Your task to perform on an android device: Open calendar and show me the fourth week of next month Image 0: 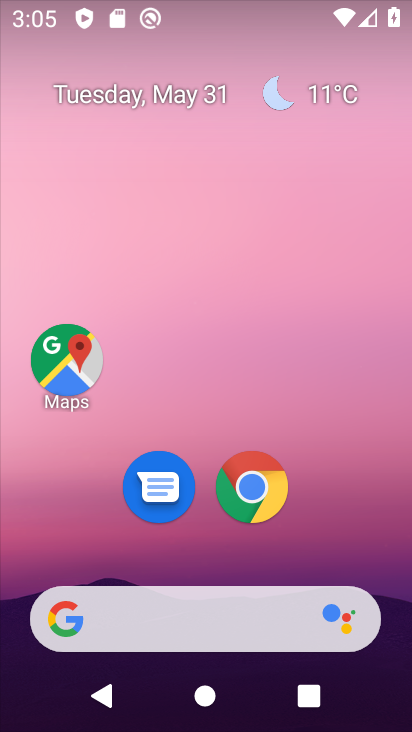
Step 0: drag from (319, 537) to (253, 80)
Your task to perform on an android device: Open calendar and show me the fourth week of next month Image 1: 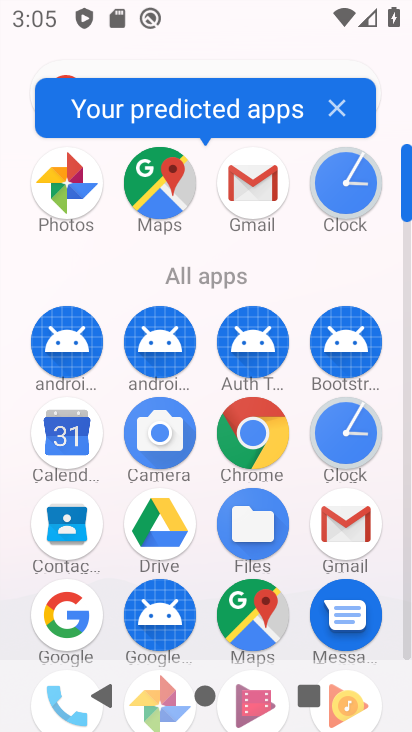
Step 1: click (66, 435)
Your task to perform on an android device: Open calendar and show me the fourth week of next month Image 2: 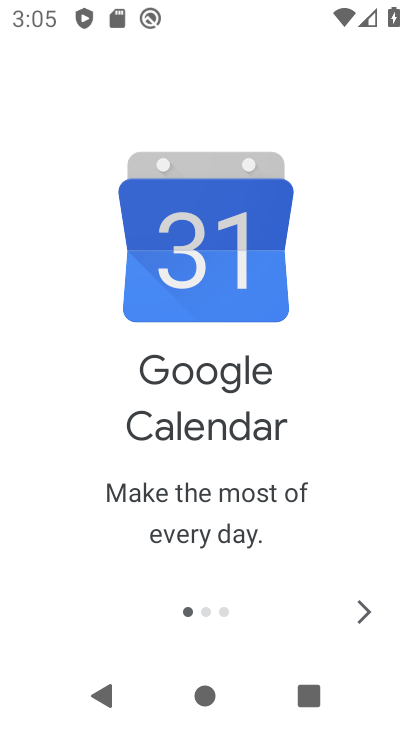
Step 2: click (368, 611)
Your task to perform on an android device: Open calendar and show me the fourth week of next month Image 3: 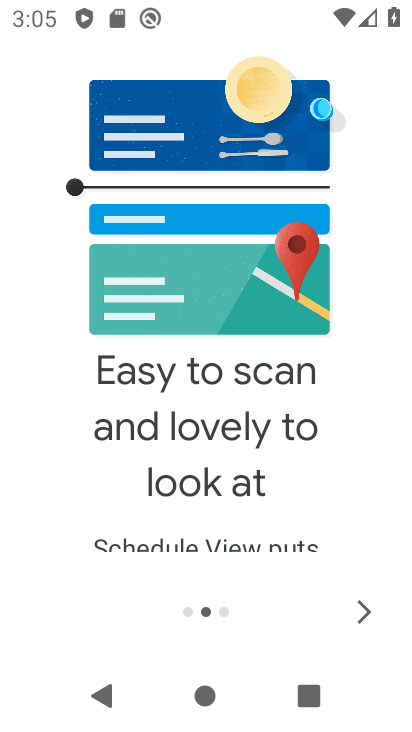
Step 3: click (368, 611)
Your task to perform on an android device: Open calendar and show me the fourth week of next month Image 4: 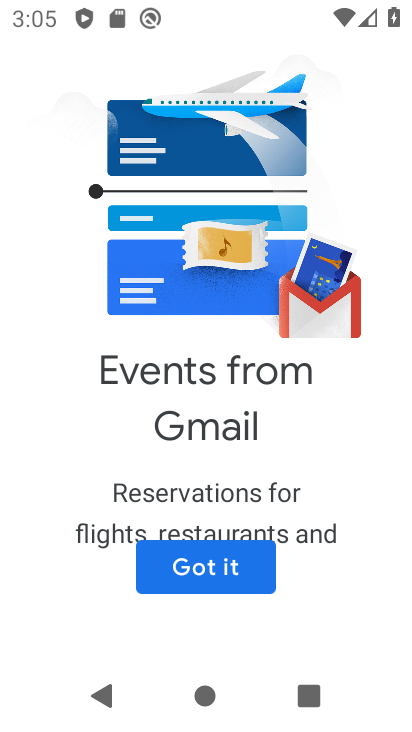
Step 4: click (204, 569)
Your task to perform on an android device: Open calendar and show me the fourth week of next month Image 5: 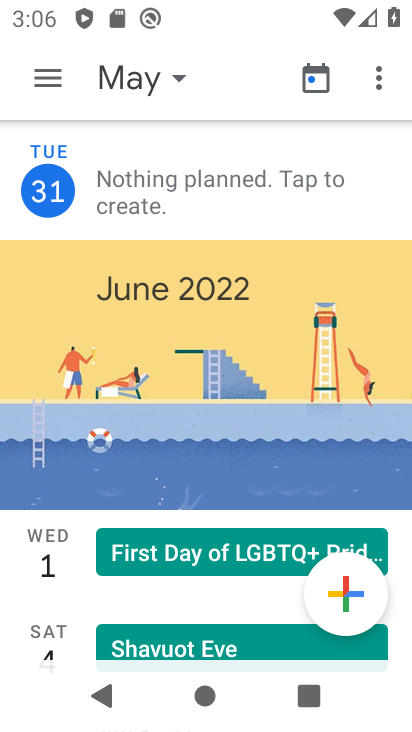
Step 5: click (181, 77)
Your task to perform on an android device: Open calendar and show me the fourth week of next month Image 6: 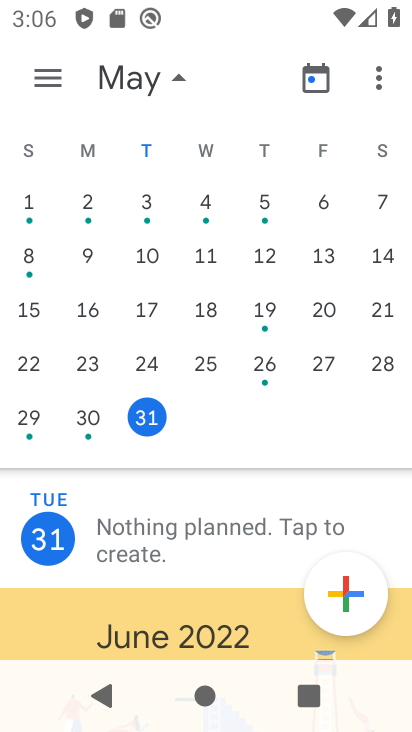
Step 6: drag from (358, 334) to (3, 358)
Your task to perform on an android device: Open calendar and show me the fourth week of next month Image 7: 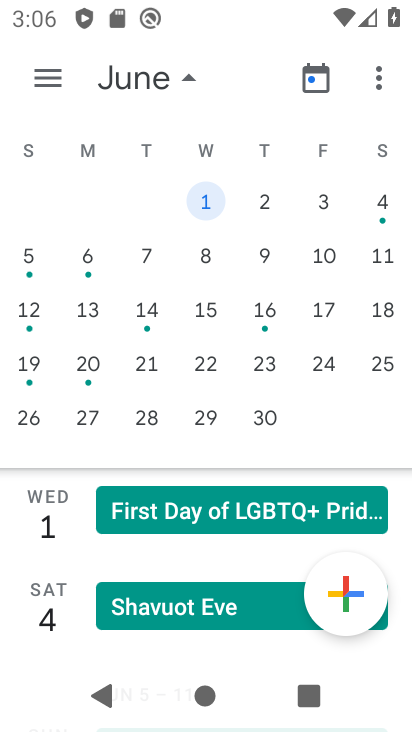
Step 7: click (79, 410)
Your task to perform on an android device: Open calendar and show me the fourth week of next month Image 8: 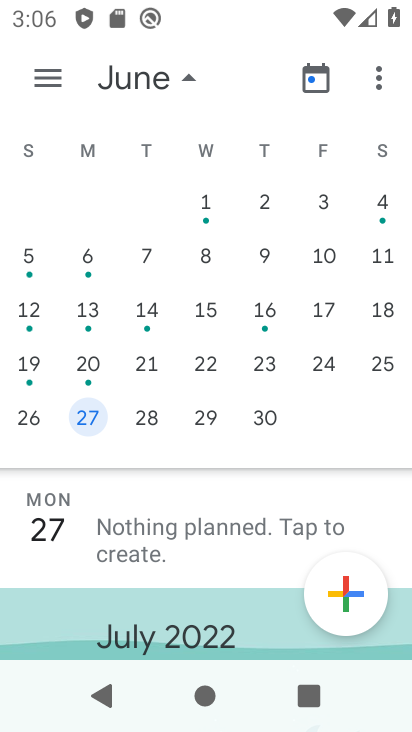
Step 8: click (48, 71)
Your task to perform on an android device: Open calendar and show me the fourth week of next month Image 9: 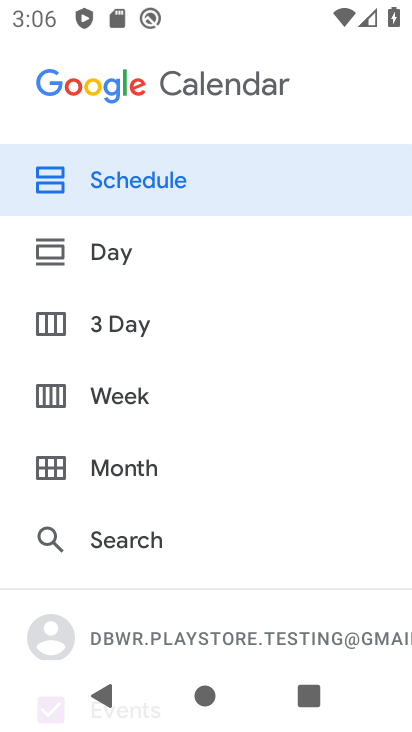
Step 9: click (120, 397)
Your task to perform on an android device: Open calendar and show me the fourth week of next month Image 10: 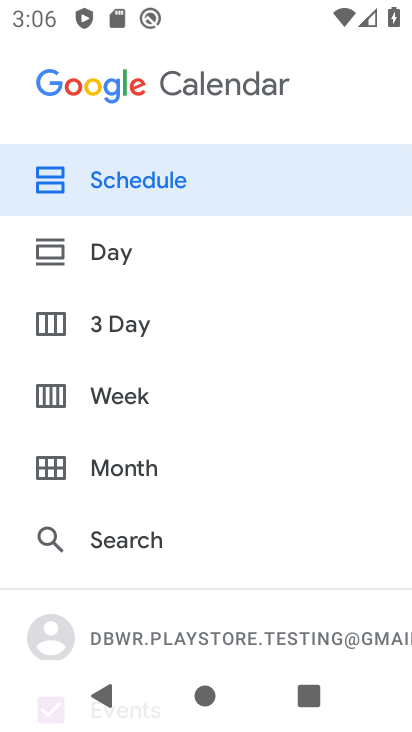
Step 10: click (117, 397)
Your task to perform on an android device: Open calendar and show me the fourth week of next month Image 11: 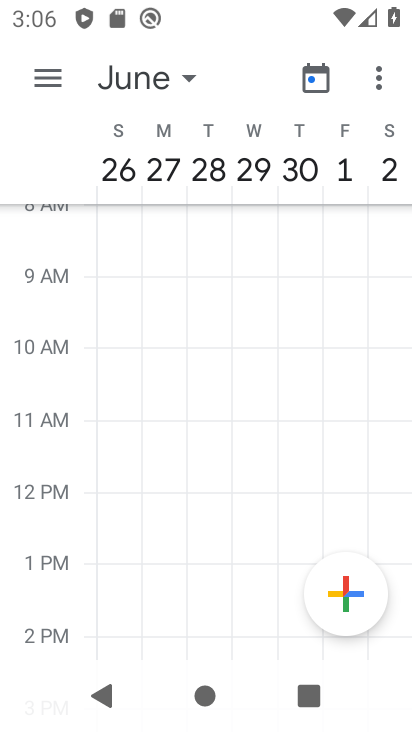
Step 11: task complete